Your task to perform on an android device: Open Google Maps Image 0: 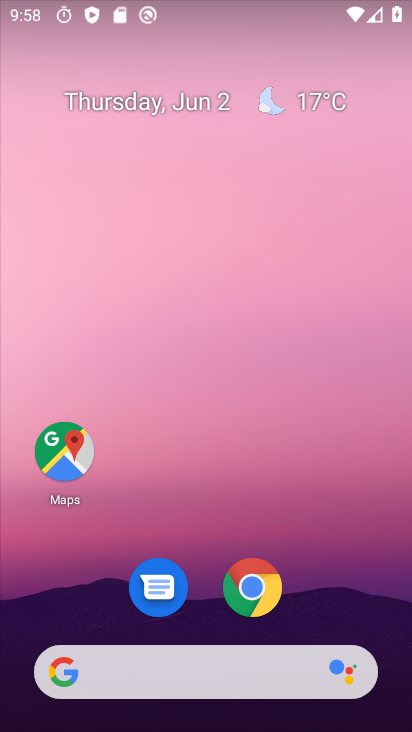
Step 0: press home button
Your task to perform on an android device: Open Google Maps Image 1: 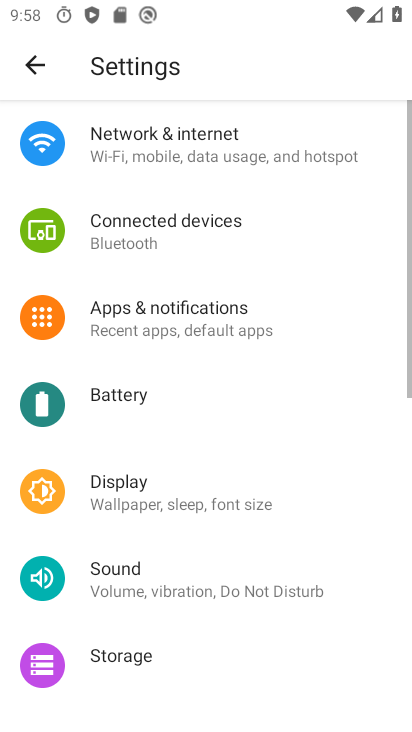
Step 1: press home button
Your task to perform on an android device: Open Google Maps Image 2: 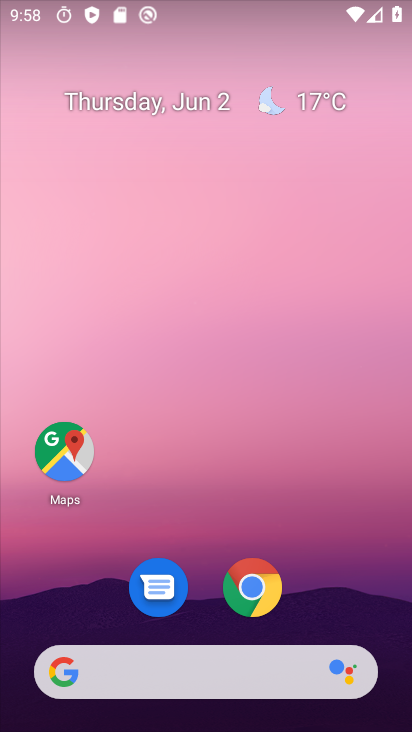
Step 2: click (62, 446)
Your task to perform on an android device: Open Google Maps Image 3: 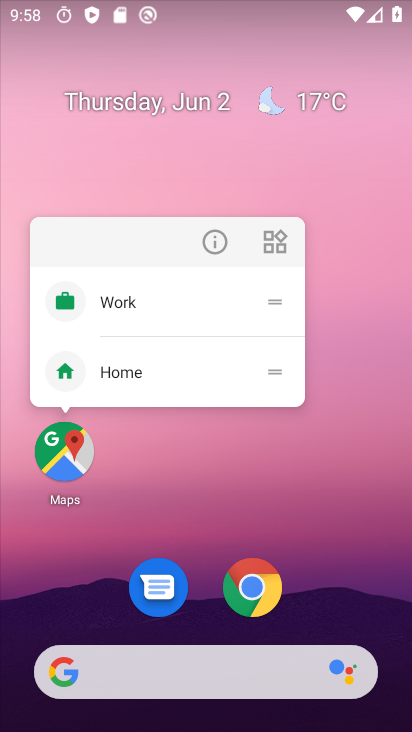
Step 3: click (62, 446)
Your task to perform on an android device: Open Google Maps Image 4: 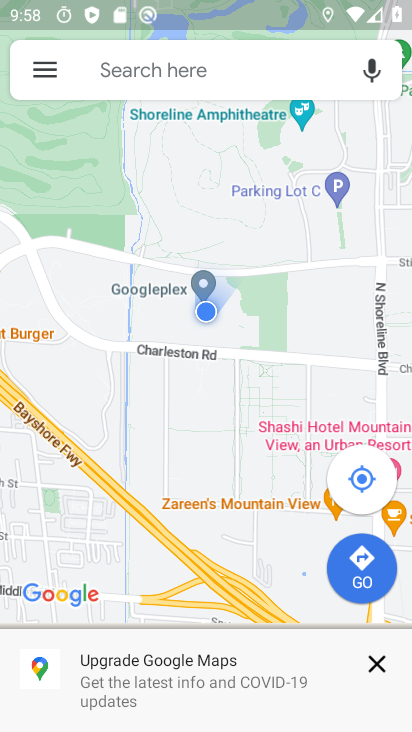
Step 4: click (370, 660)
Your task to perform on an android device: Open Google Maps Image 5: 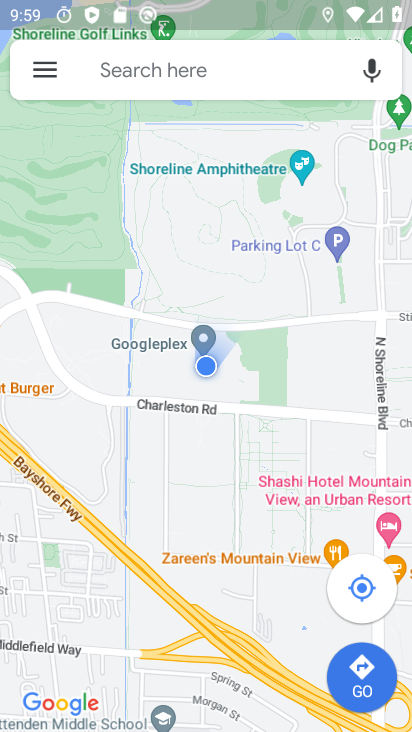
Step 5: task complete